Your task to perform on an android device: What is the news today? Image 0: 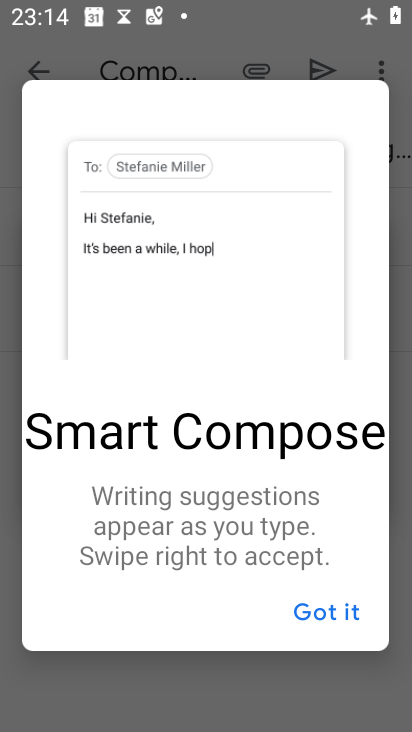
Step 0: press home button
Your task to perform on an android device: What is the news today? Image 1: 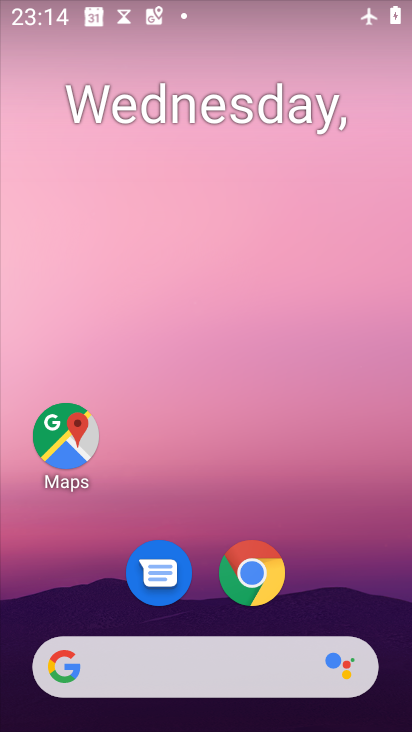
Step 1: click (263, 567)
Your task to perform on an android device: What is the news today? Image 2: 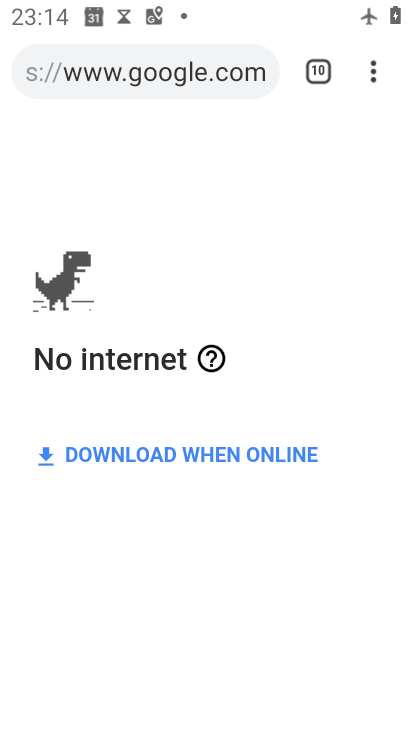
Step 2: click (371, 62)
Your task to perform on an android device: What is the news today? Image 3: 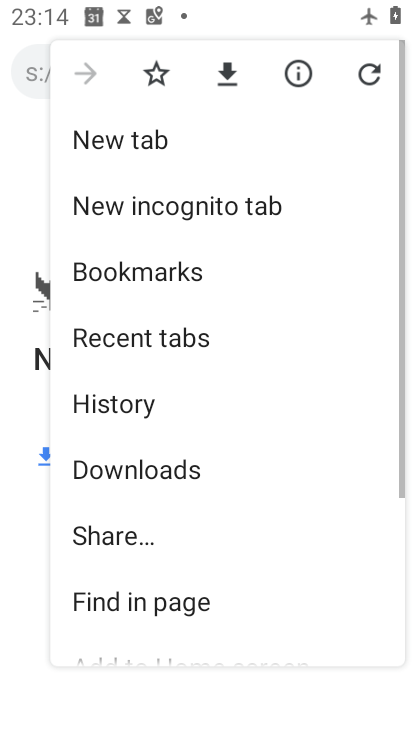
Step 3: click (137, 141)
Your task to perform on an android device: What is the news today? Image 4: 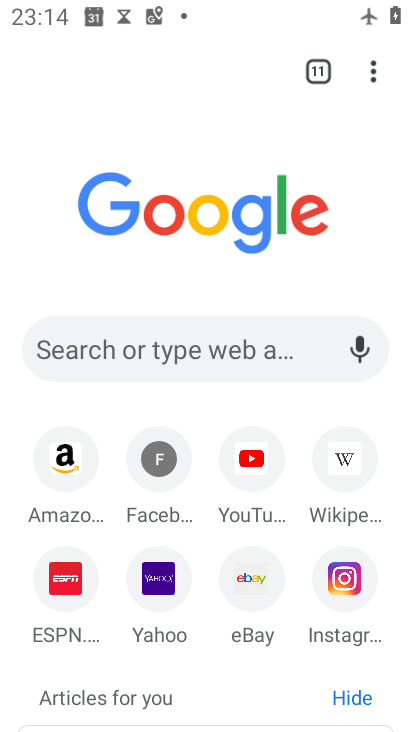
Step 4: click (191, 338)
Your task to perform on an android device: What is the news today? Image 5: 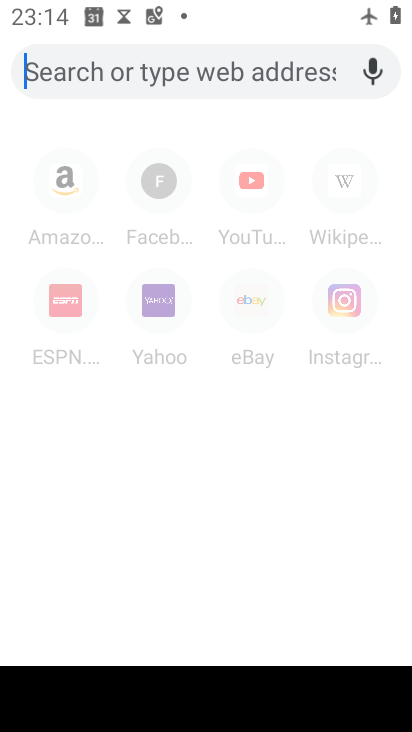
Step 5: type "What is the news today?"
Your task to perform on an android device: What is the news today? Image 6: 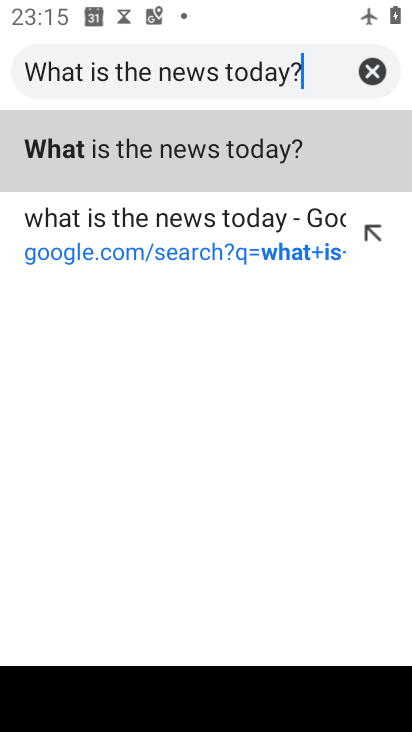
Step 6: click (303, 132)
Your task to perform on an android device: What is the news today? Image 7: 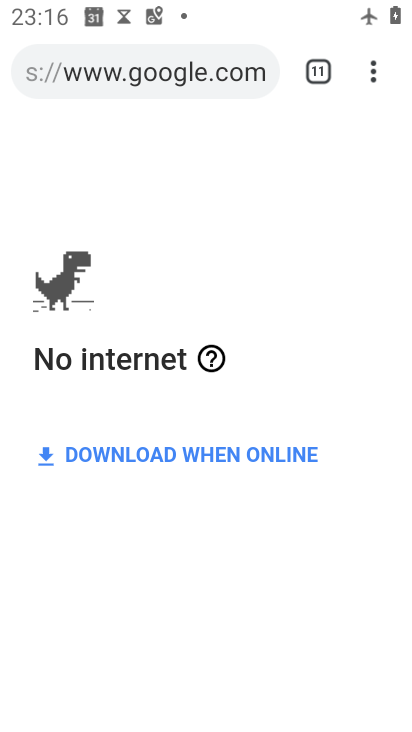
Step 7: task complete